Your task to perform on an android device: Open the map Image 0: 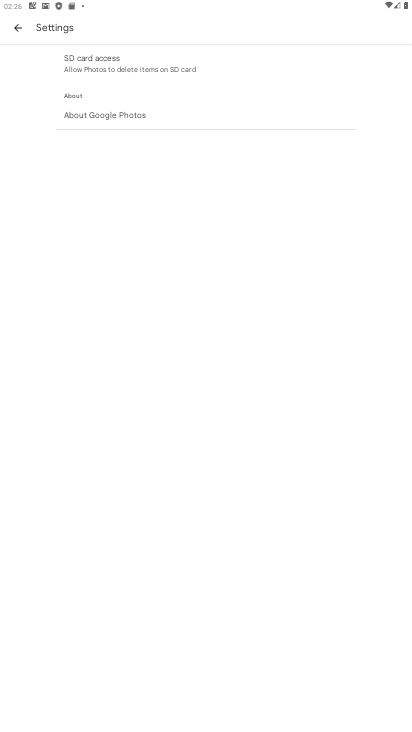
Step 0: press home button
Your task to perform on an android device: Open the map Image 1: 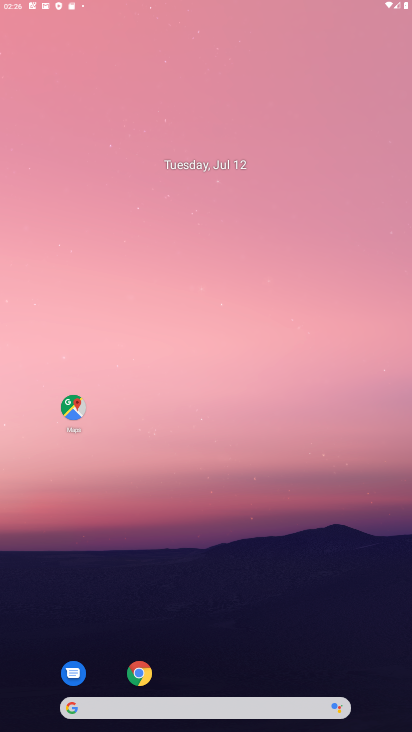
Step 1: press home button
Your task to perform on an android device: Open the map Image 2: 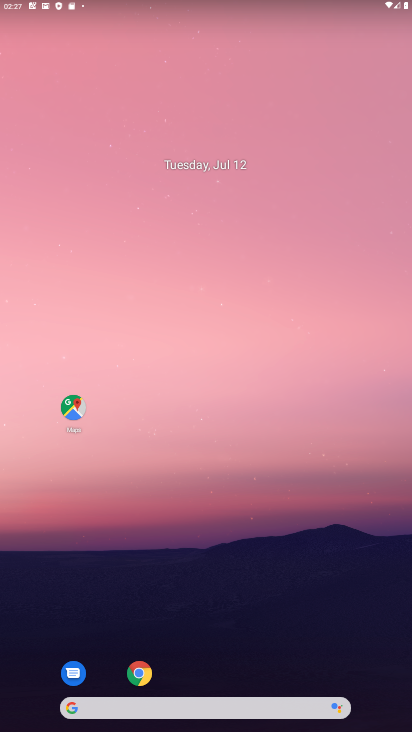
Step 2: click (75, 406)
Your task to perform on an android device: Open the map Image 3: 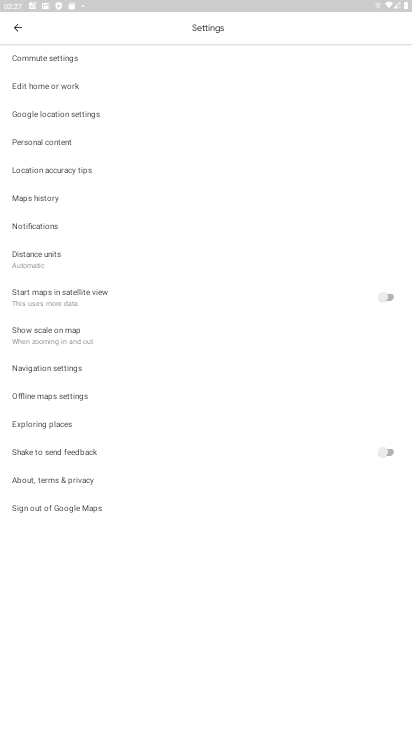
Step 3: click (15, 18)
Your task to perform on an android device: Open the map Image 4: 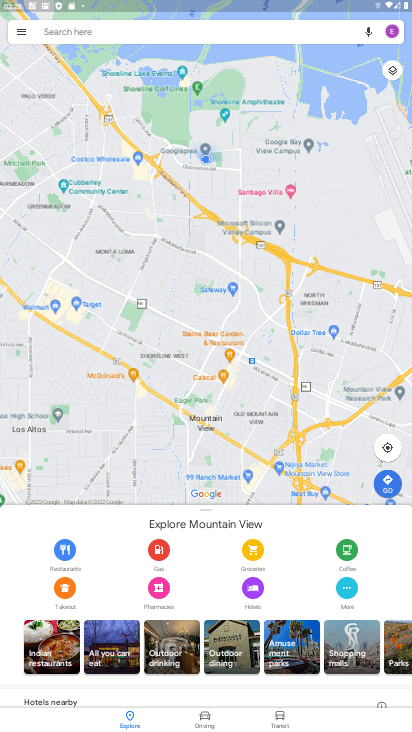
Step 4: task complete